Your task to perform on an android device: turn notification dots off Image 0: 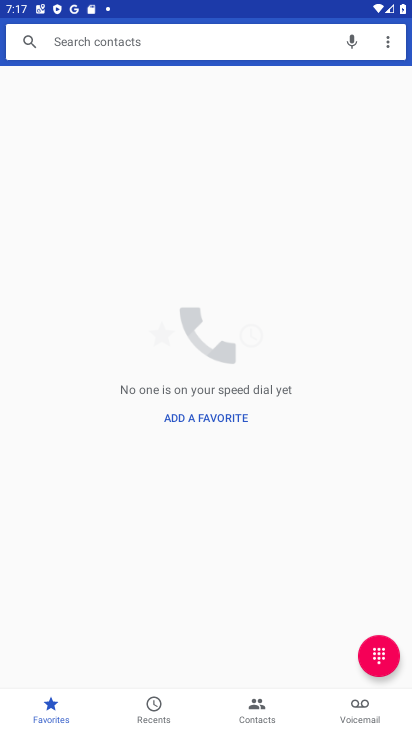
Step 0: press home button
Your task to perform on an android device: turn notification dots off Image 1: 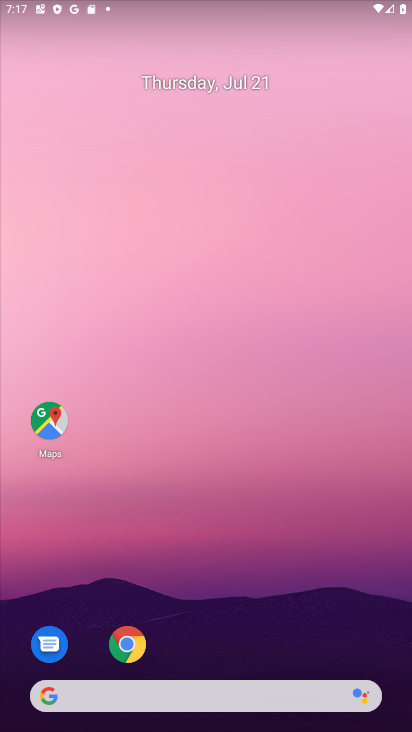
Step 1: drag from (301, 516) to (289, 114)
Your task to perform on an android device: turn notification dots off Image 2: 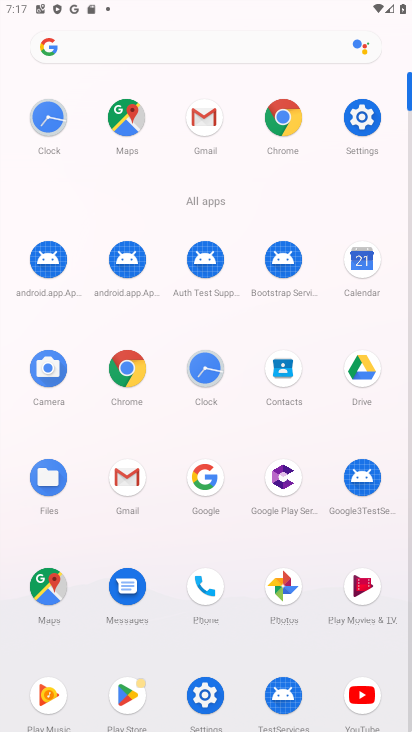
Step 2: click (369, 119)
Your task to perform on an android device: turn notification dots off Image 3: 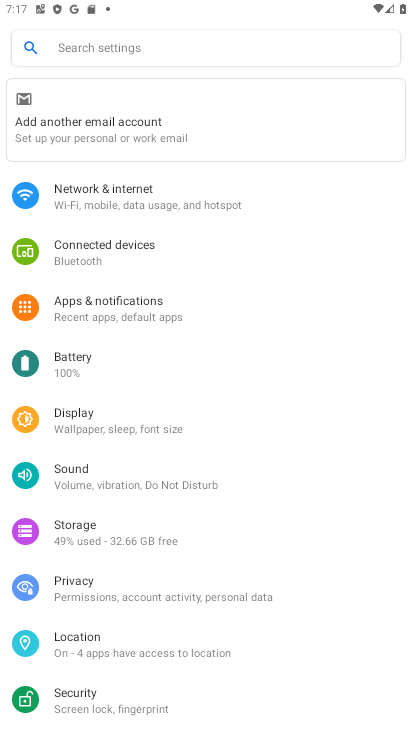
Step 3: task complete